Your task to perform on an android device: Go to Android settings Image 0: 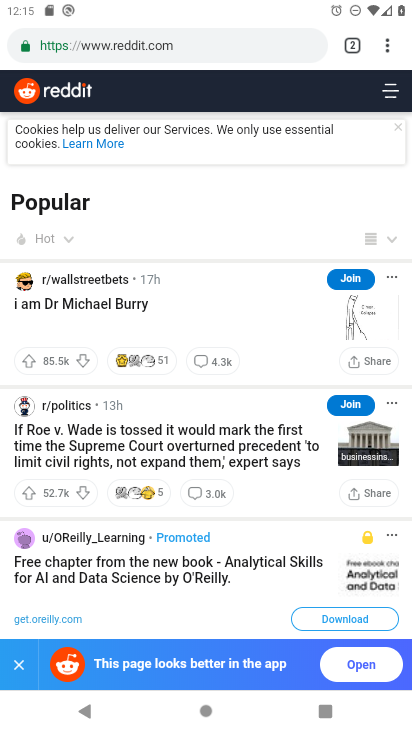
Step 0: press home button
Your task to perform on an android device: Go to Android settings Image 1: 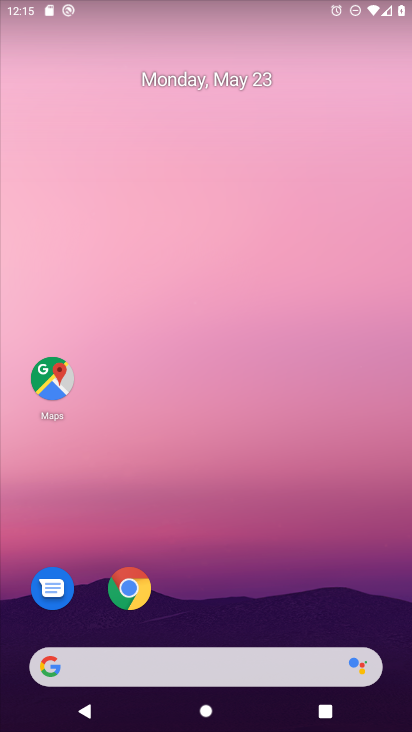
Step 1: drag from (258, 694) to (230, 134)
Your task to perform on an android device: Go to Android settings Image 2: 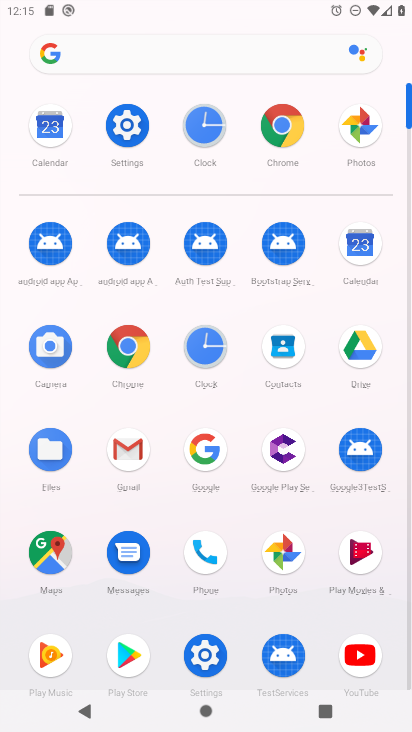
Step 2: click (130, 122)
Your task to perform on an android device: Go to Android settings Image 3: 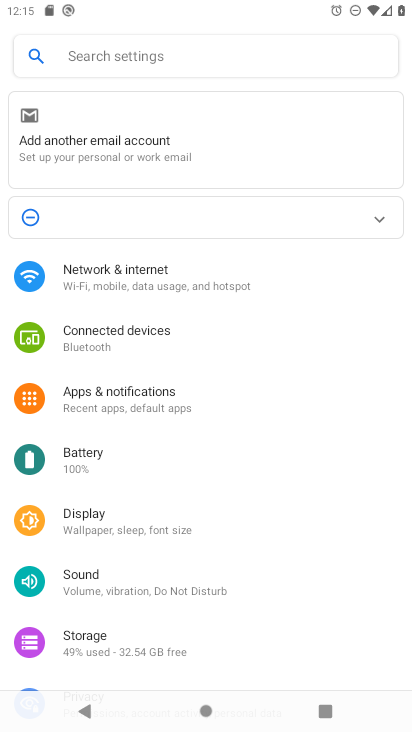
Step 3: click (141, 49)
Your task to perform on an android device: Go to Android settings Image 4: 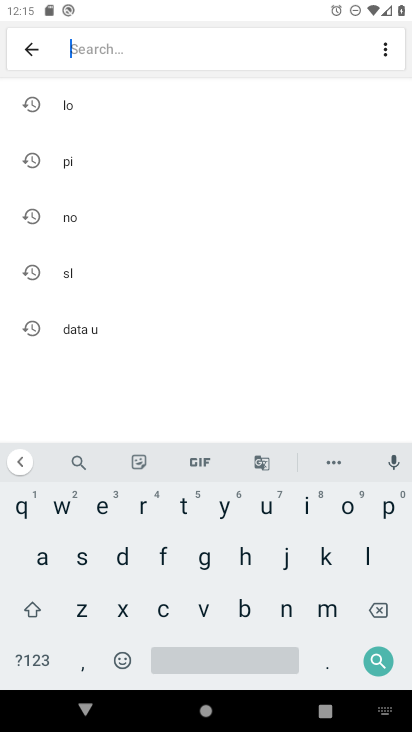
Step 4: click (31, 562)
Your task to perform on an android device: Go to Android settings Image 5: 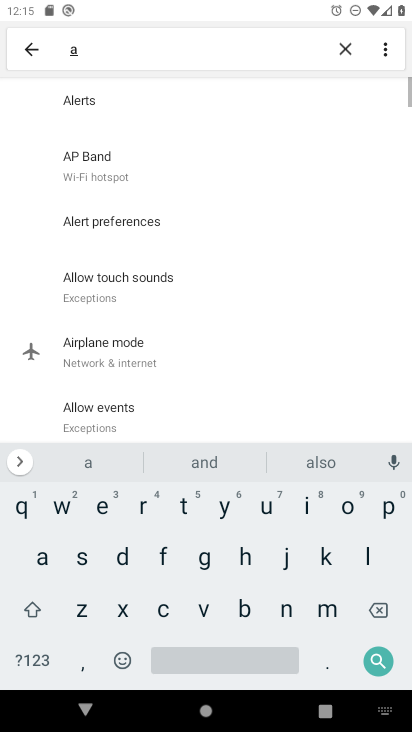
Step 5: click (284, 613)
Your task to perform on an android device: Go to Android settings Image 6: 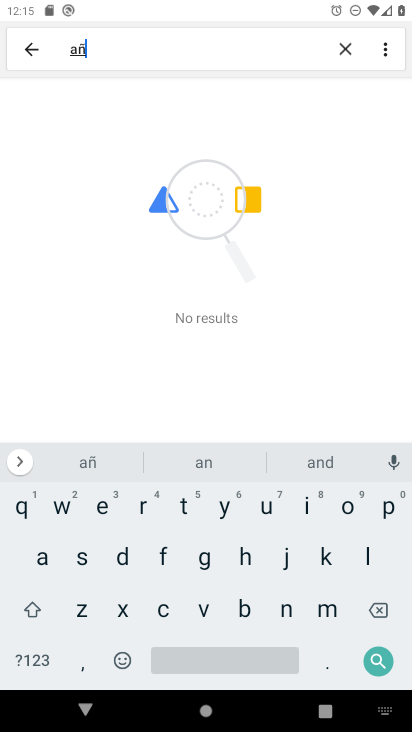
Step 6: click (385, 606)
Your task to perform on an android device: Go to Android settings Image 7: 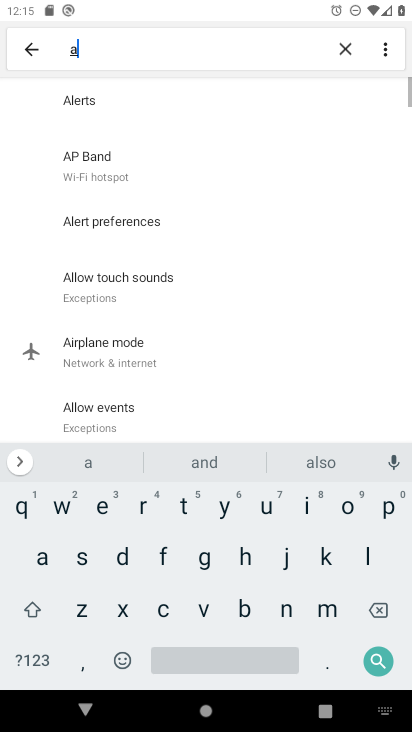
Step 7: click (289, 614)
Your task to perform on an android device: Go to Android settings Image 8: 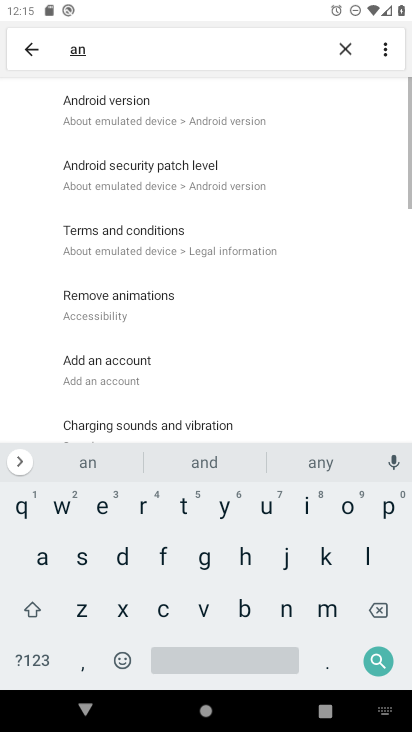
Step 8: click (137, 113)
Your task to perform on an android device: Go to Android settings Image 9: 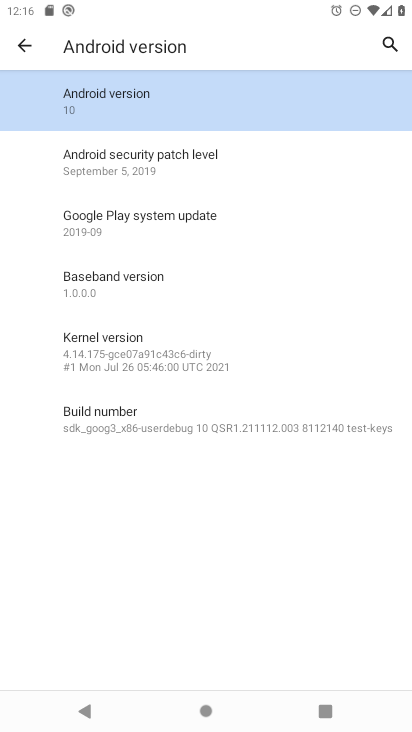
Step 9: click (181, 111)
Your task to perform on an android device: Go to Android settings Image 10: 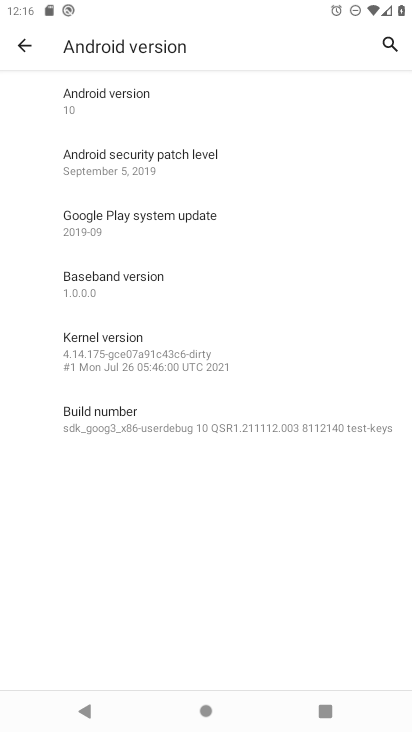
Step 10: task complete